Your task to perform on an android device: turn off translation in the chrome app Image 0: 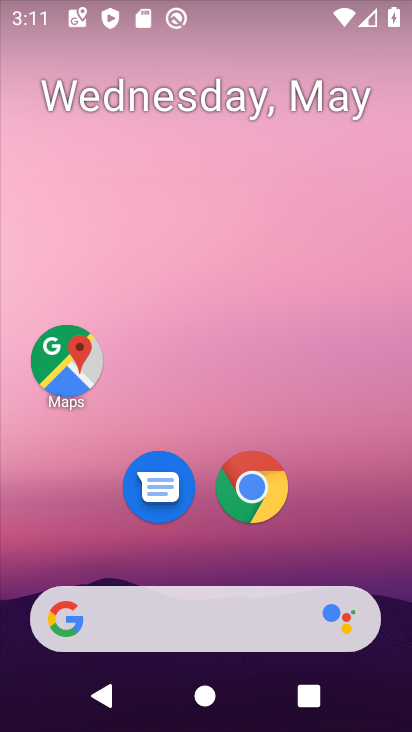
Step 0: drag from (320, 445) to (231, 9)
Your task to perform on an android device: turn off translation in the chrome app Image 1: 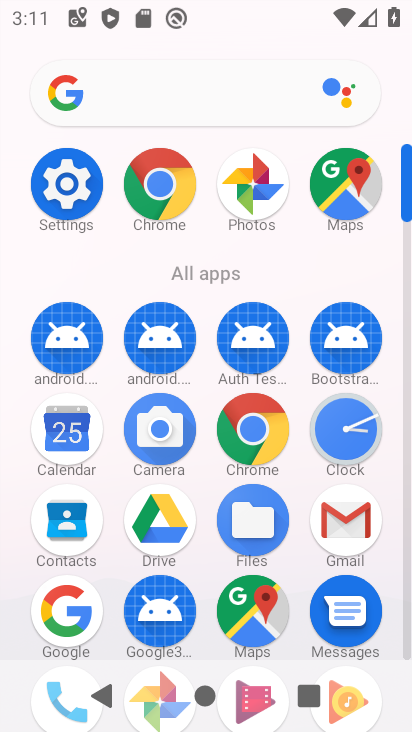
Step 1: drag from (7, 544) to (16, 208)
Your task to perform on an android device: turn off translation in the chrome app Image 2: 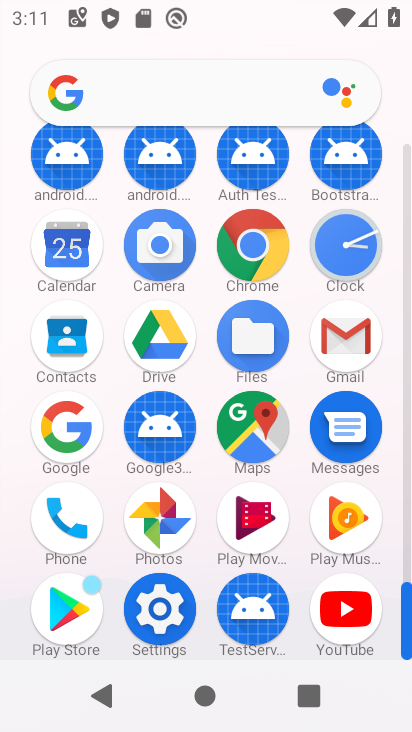
Step 2: click (251, 243)
Your task to perform on an android device: turn off translation in the chrome app Image 3: 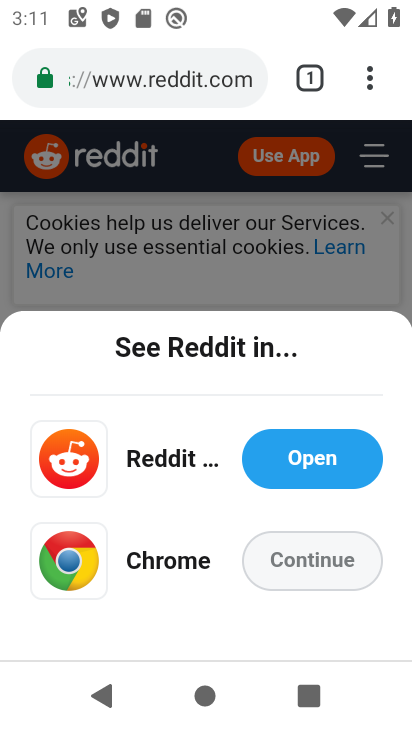
Step 3: drag from (372, 70) to (110, 542)
Your task to perform on an android device: turn off translation in the chrome app Image 4: 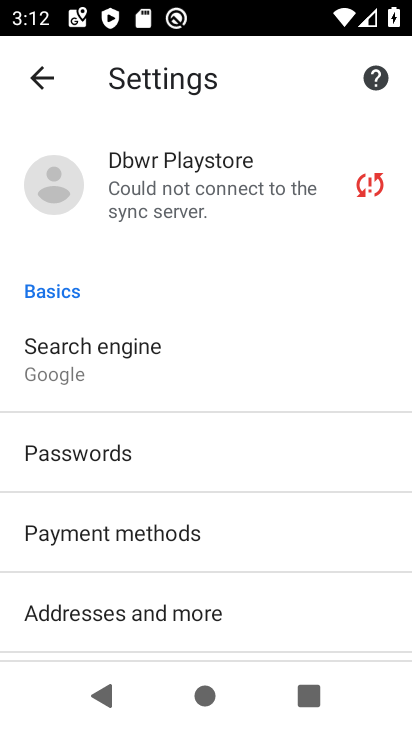
Step 4: drag from (219, 563) to (210, 215)
Your task to perform on an android device: turn off translation in the chrome app Image 5: 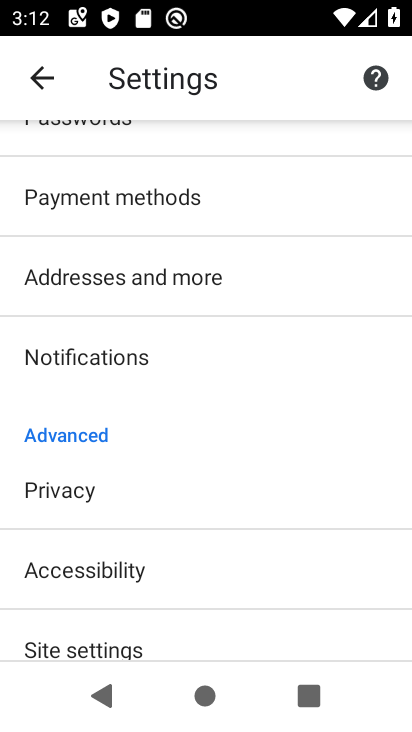
Step 5: drag from (202, 576) to (211, 198)
Your task to perform on an android device: turn off translation in the chrome app Image 6: 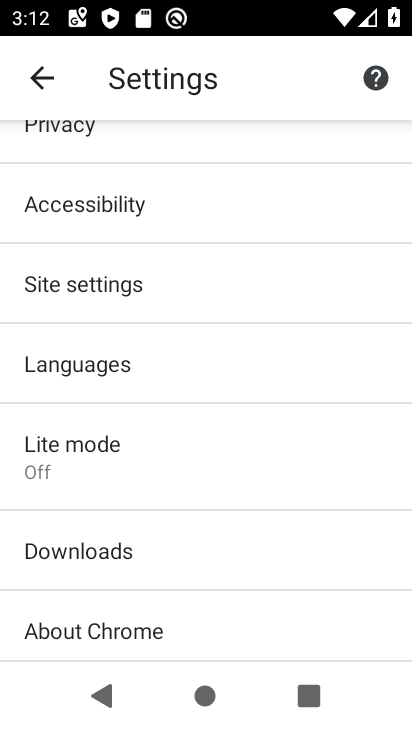
Step 6: drag from (180, 549) to (217, 295)
Your task to perform on an android device: turn off translation in the chrome app Image 7: 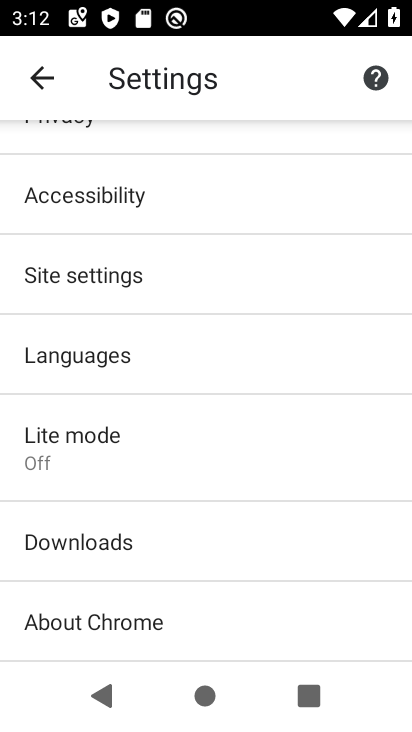
Step 7: click (138, 338)
Your task to perform on an android device: turn off translation in the chrome app Image 8: 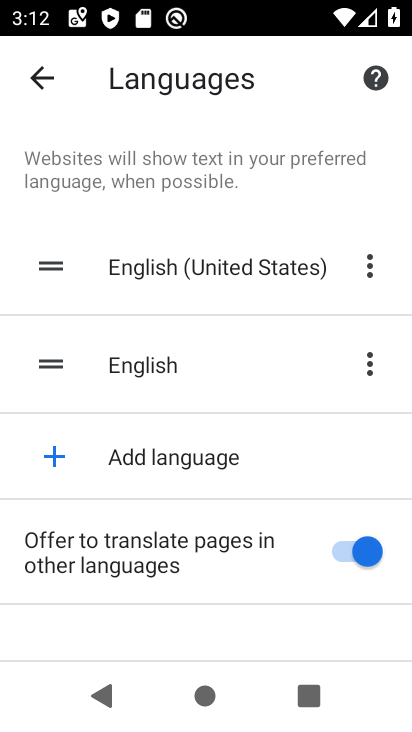
Step 8: click (350, 549)
Your task to perform on an android device: turn off translation in the chrome app Image 9: 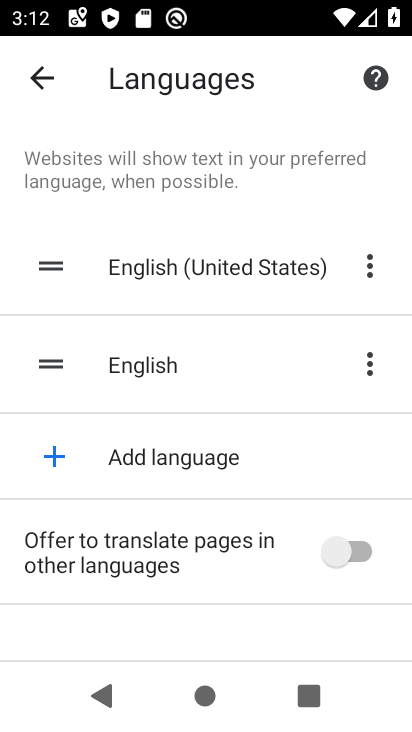
Step 9: task complete